Your task to perform on an android device: delete a single message in the gmail app Image 0: 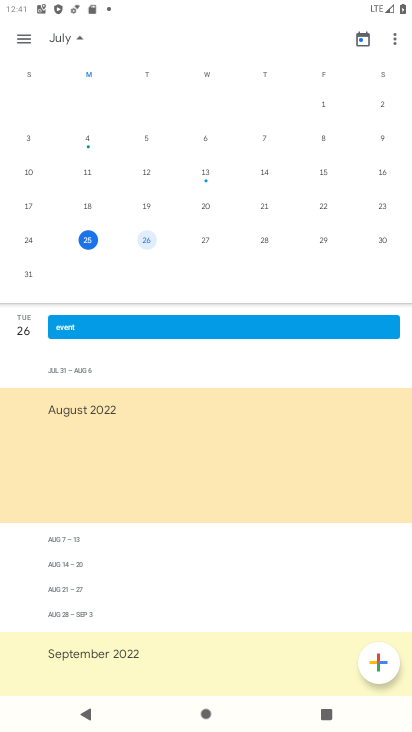
Step 0: press home button
Your task to perform on an android device: delete a single message in the gmail app Image 1: 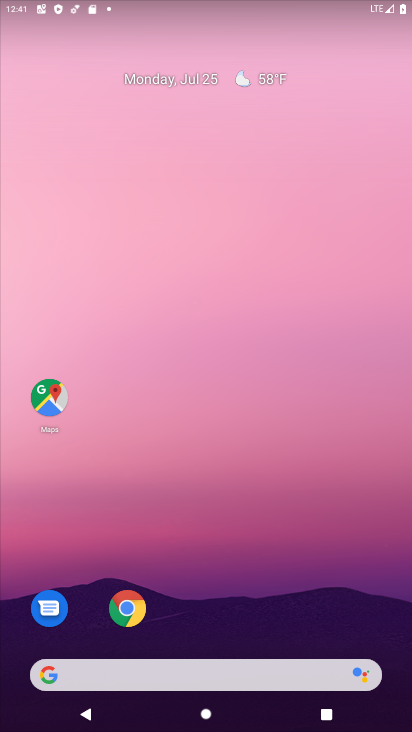
Step 1: drag from (167, 676) to (202, 157)
Your task to perform on an android device: delete a single message in the gmail app Image 2: 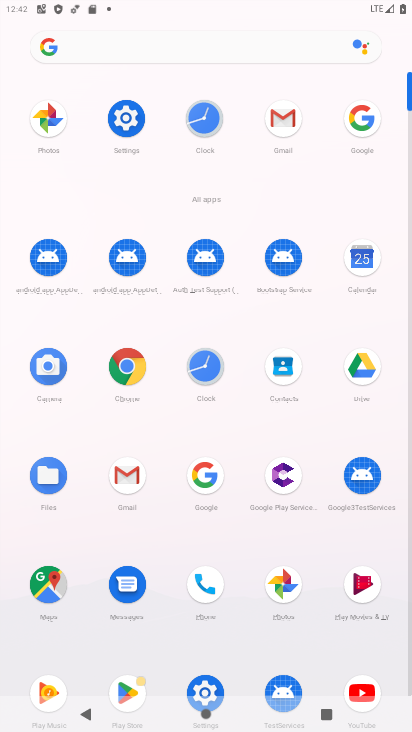
Step 2: click (285, 117)
Your task to perform on an android device: delete a single message in the gmail app Image 3: 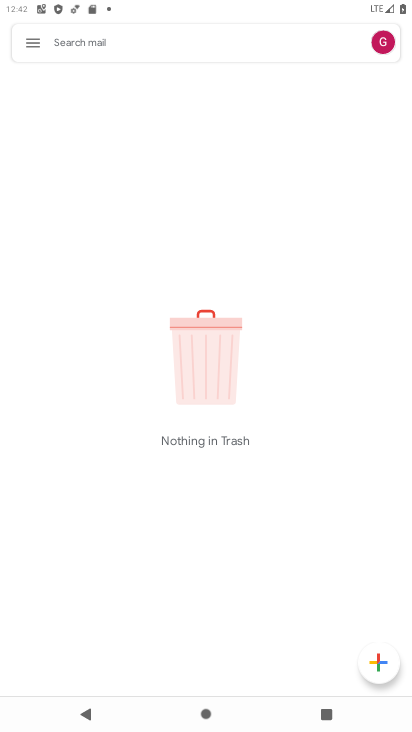
Step 3: click (33, 42)
Your task to perform on an android device: delete a single message in the gmail app Image 4: 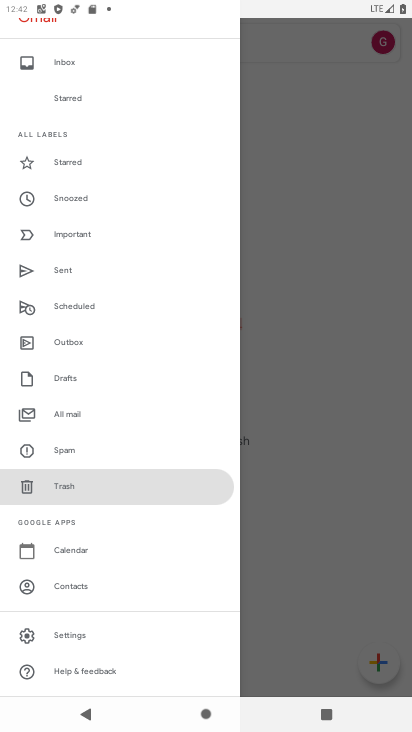
Step 4: click (66, 634)
Your task to perform on an android device: delete a single message in the gmail app Image 5: 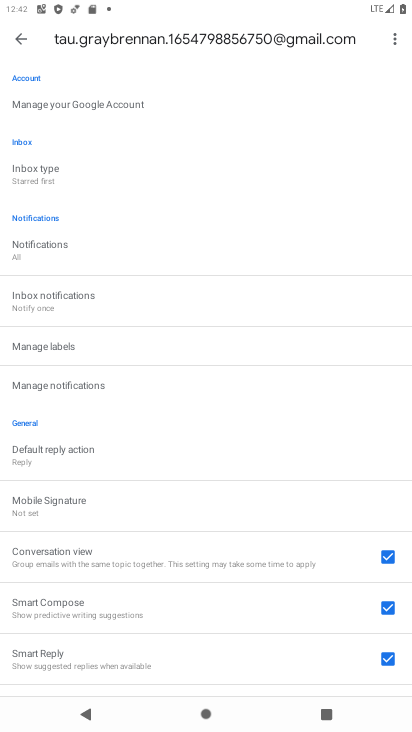
Step 5: press back button
Your task to perform on an android device: delete a single message in the gmail app Image 6: 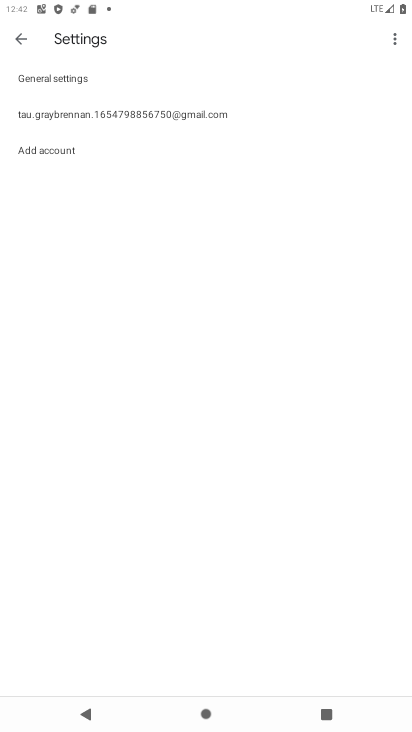
Step 6: press back button
Your task to perform on an android device: delete a single message in the gmail app Image 7: 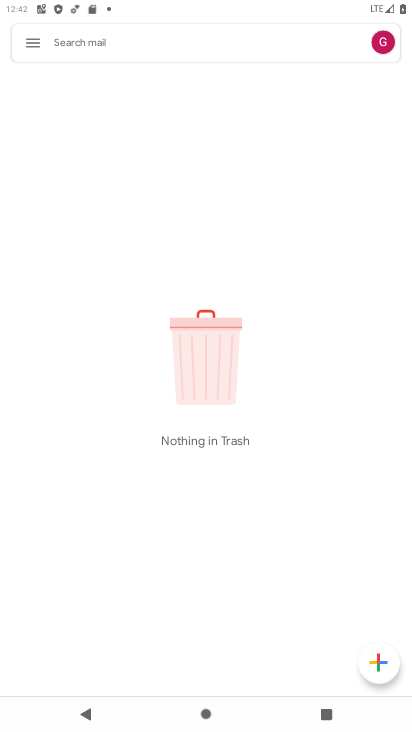
Step 7: click (25, 40)
Your task to perform on an android device: delete a single message in the gmail app Image 8: 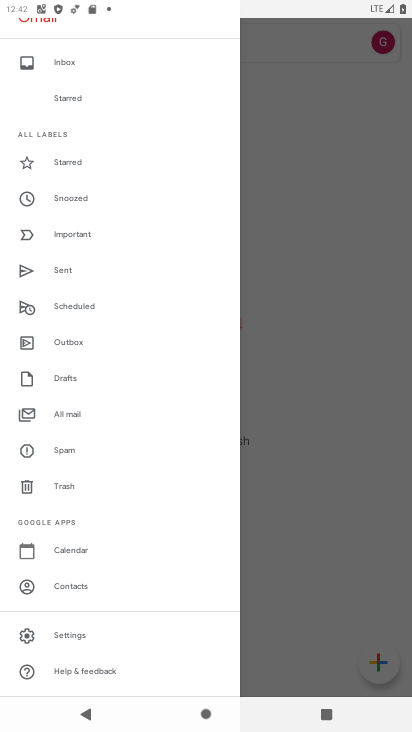
Step 8: click (63, 493)
Your task to perform on an android device: delete a single message in the gmail app Image 9: 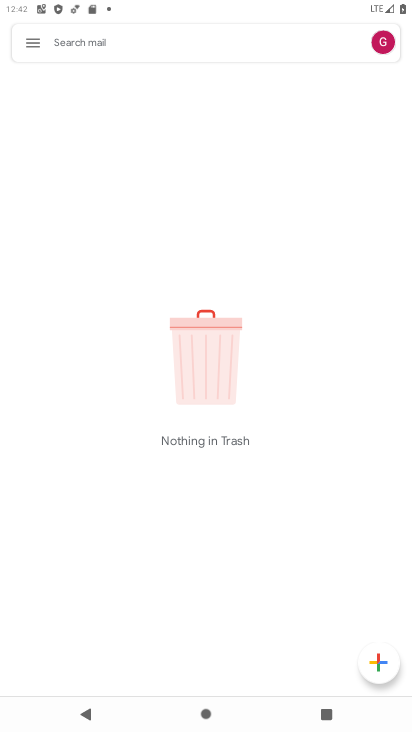
Step 9: click (31, 49)
Your task to perform on an android device: delete a single message in the gmail app Image 10: 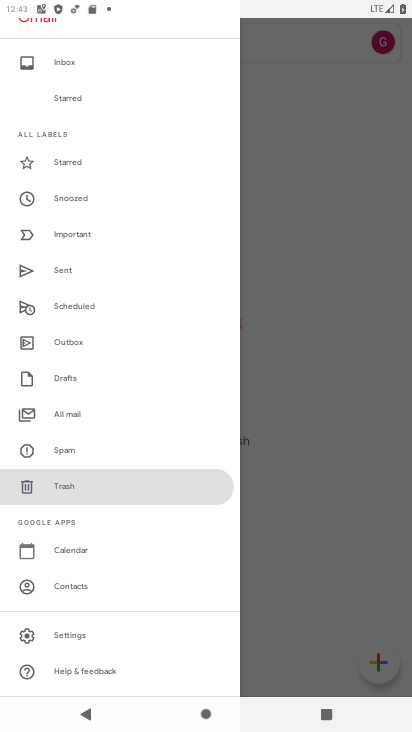
Step 10: click (66, 446)
Your task to perform on an android device: delete a single message in the gmail app Image 11: 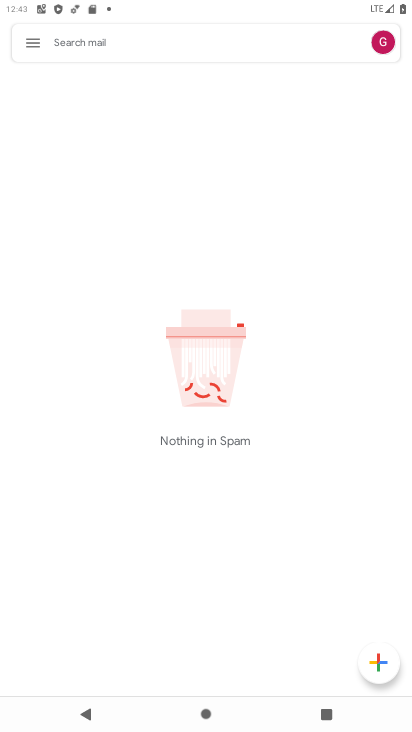
Step 11: click (31, 41)
Your task to perform on an android device: delete a single message in the gmail app Image 12: 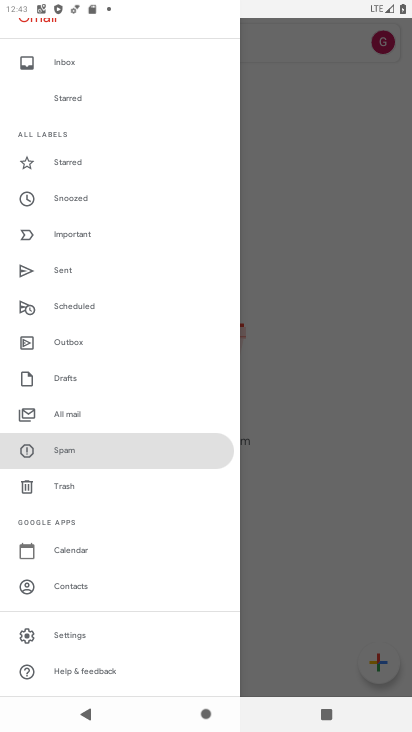
Step 12: click (70, 414)
Your task to perform on an android device: delete a single message in the gmail app Image 13: 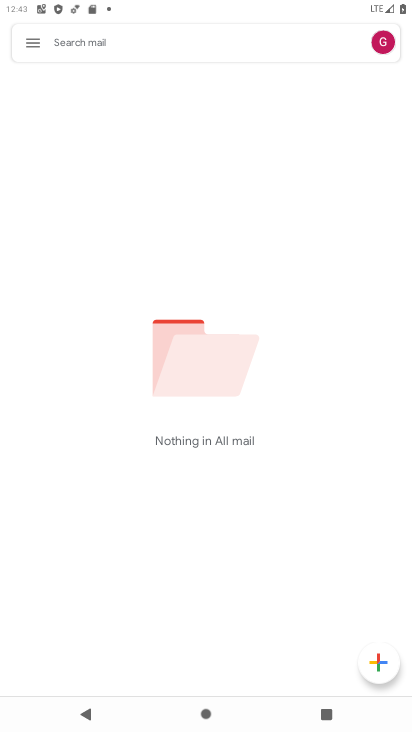
Step 13: click (34, 45)
Your task to perform on an android device: delete a single message in the gmail app Image 14: 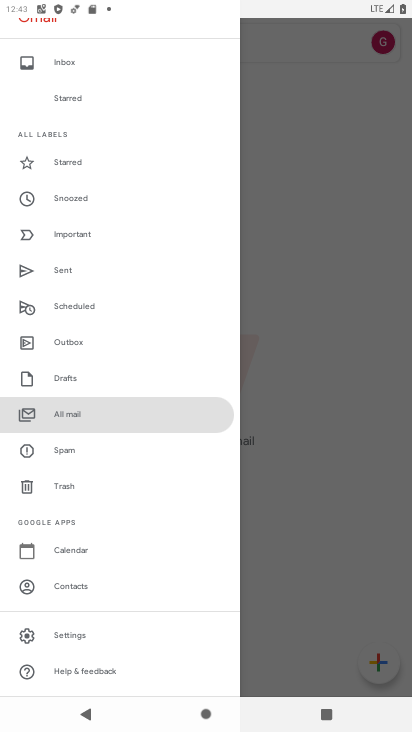
Step 14: click (77, 375)
Your task to perform on an android device: delete a single message in the gmail app Image 15: 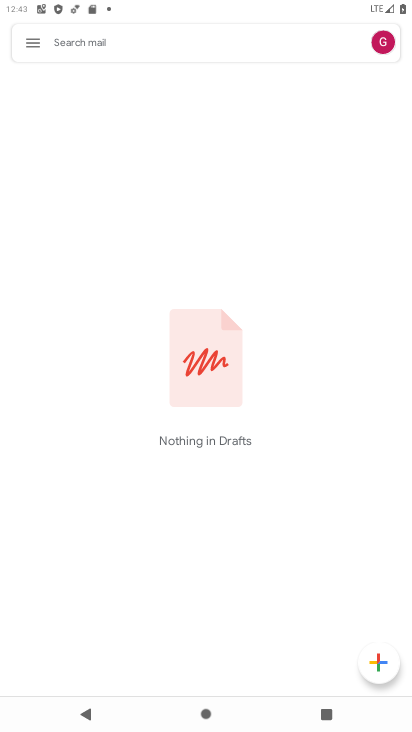
Step 15: click (33, 43)
Your task to perform on an android device: delete a single message in the gmail app Image 16: 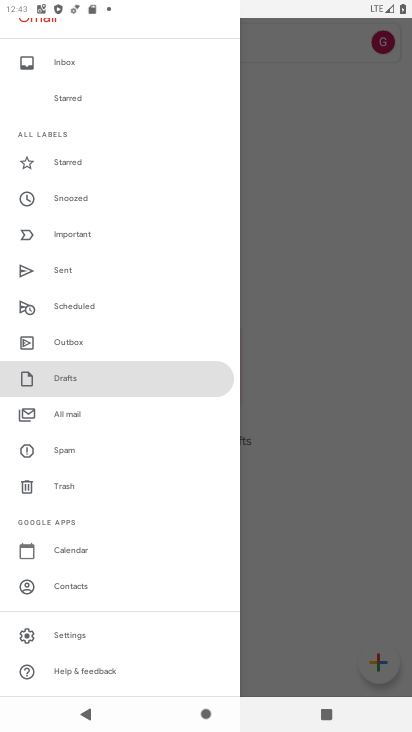
Step 16: click (78, 341)
Your task to perform on an android device: delete a single message in the gmail app Image 17: 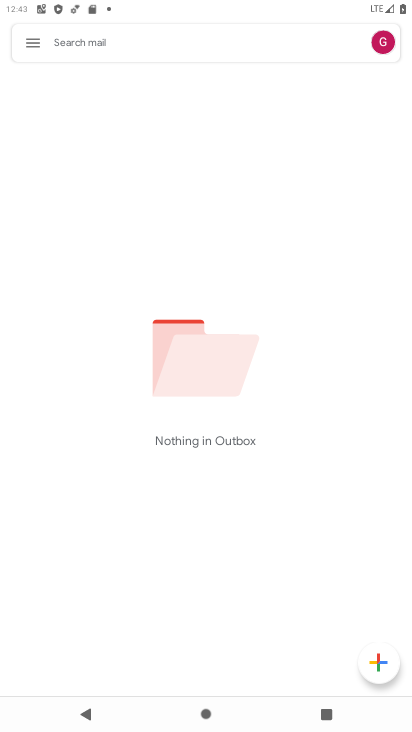
Step 17: task complete